Your task to perform on an android device: Go to Google Image 0: 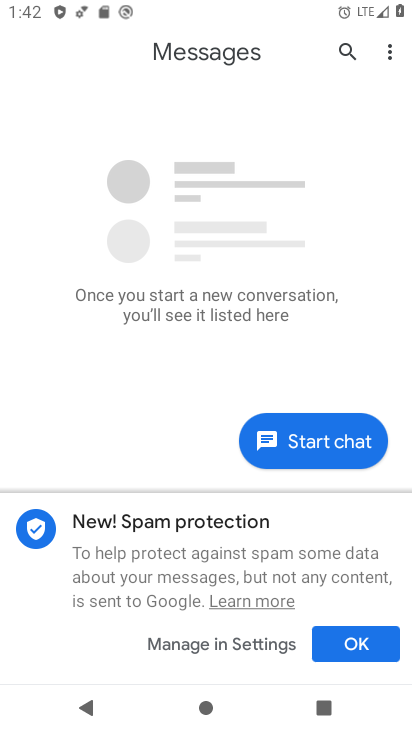
Step 0: press home button
Your task to perform on an android device: Go to Google Image 1: 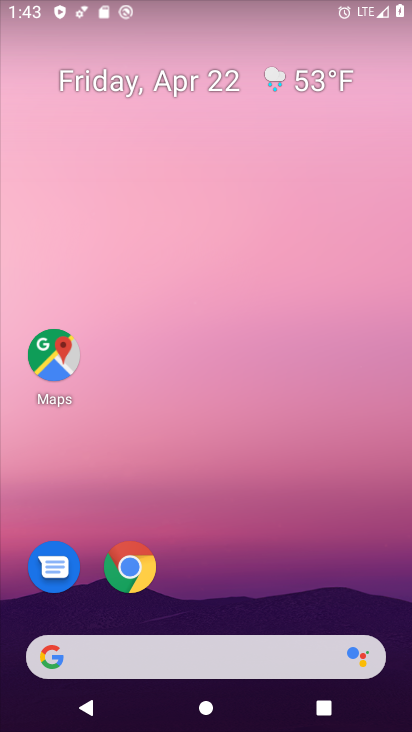
Step 1: click (131, 567)
Your task to perform on an android device: Go to Google Image 2: 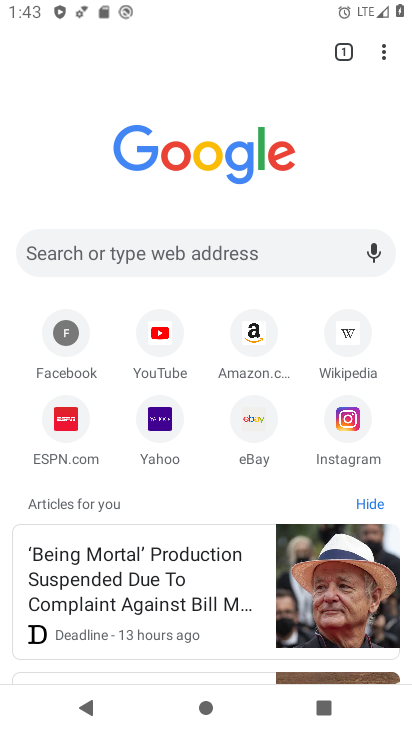
Step 2: task complete